Your task to perform on an android device: turn off sleep mode Image 0: 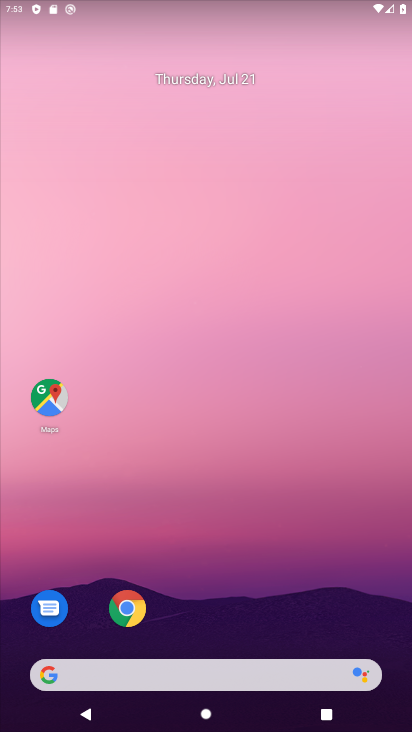
Step 0: press home button
Your task to perform on an android device: turn off sleep mode Image 1: 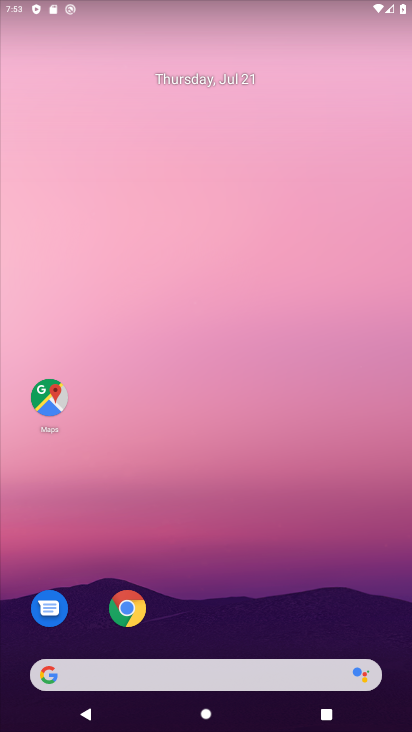
Step 1: drag from (204, 638) to (219, 74)
Your task to perform on an android device: turn off sleep mode Image 2: 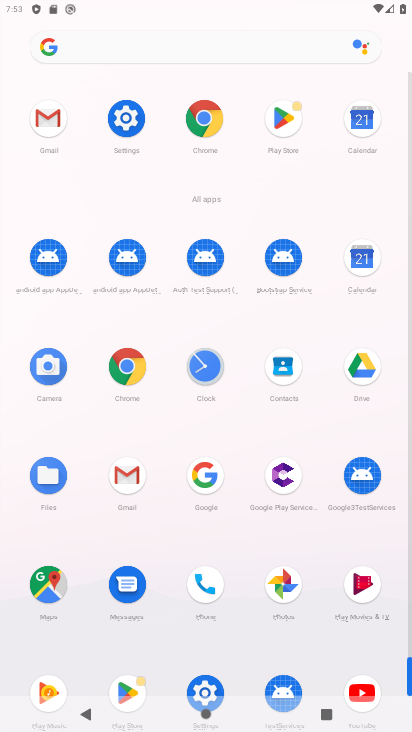
Step 2: click (123, 113)
Your task to perform on an android device: turn off sleep mode Image 3: 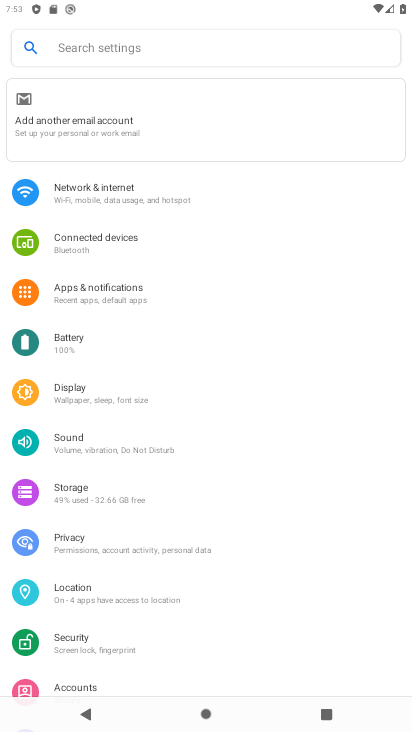
Step 3: click (68, 390)
Your task to perform on an android device: turn off sleep mode Image 4: 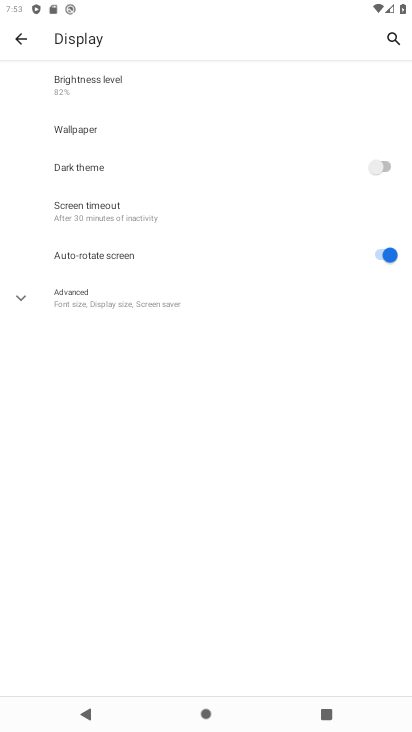
Step 4: click (14, 296)
Your task to perform on an android device: turn off sleep mode Image 5: 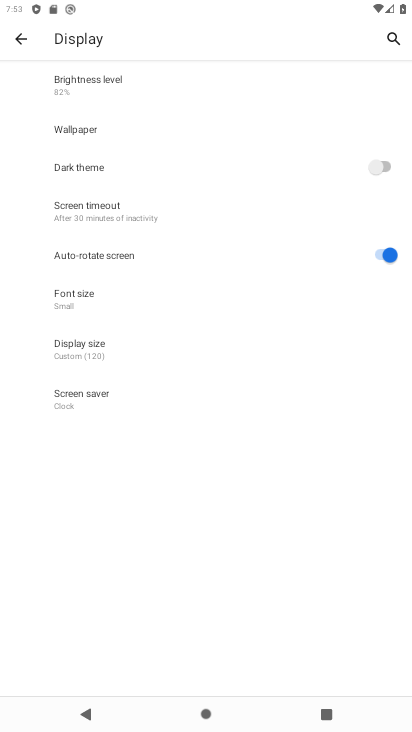
Step 5: task complete